Your task to perform on an android device: Open settings on Google Maps Image 0: 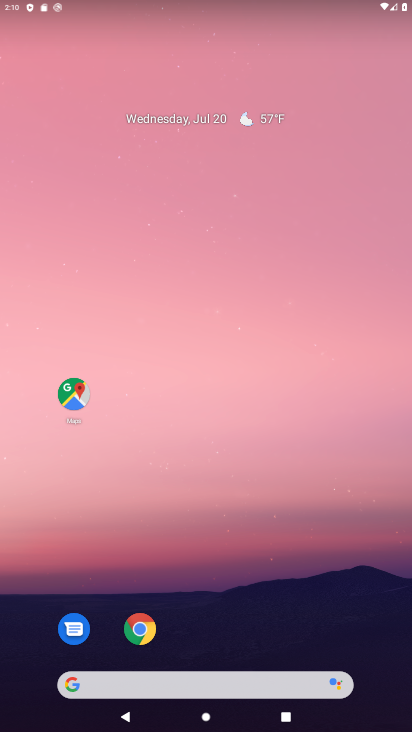
Step 0: click (65, 399)
Your task to perform on an android device: Open settings on Google Maps Image 1: 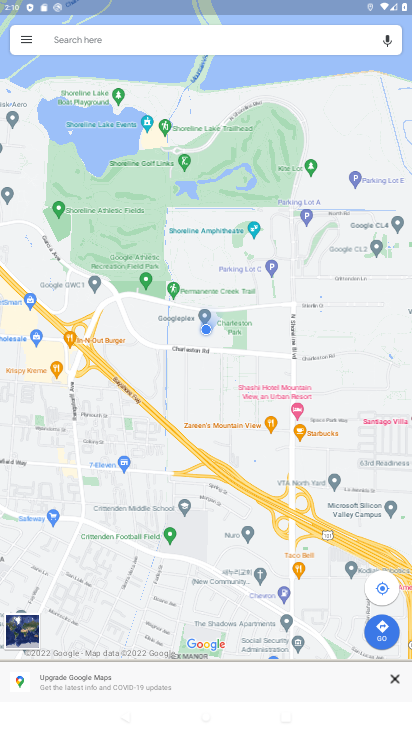
Step 1: click (26, 39)
Your task to perform on an android device: Open settings on Google Maps Image 2: 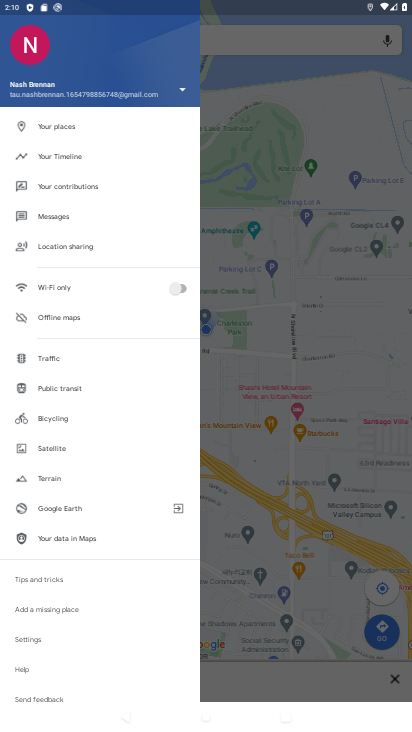
Step 2: drag from (76, 688) to (87, 405)
Your task to perform on an android device: Open settings on Google Maps Image 3: 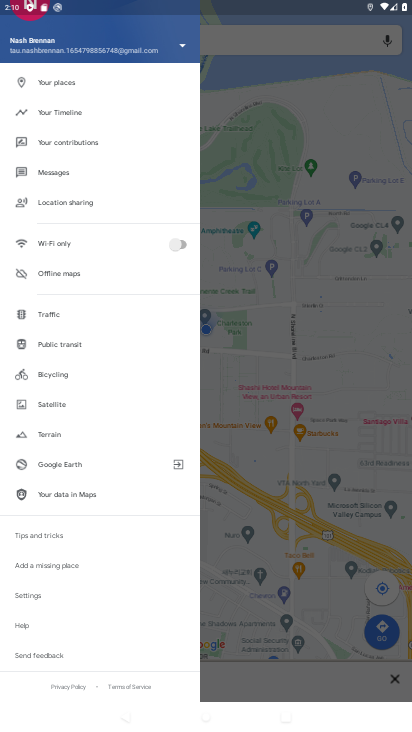
Step 3: click (52, 597)
Your task to perform on an android device: Open settings on Google Maps Image 4: 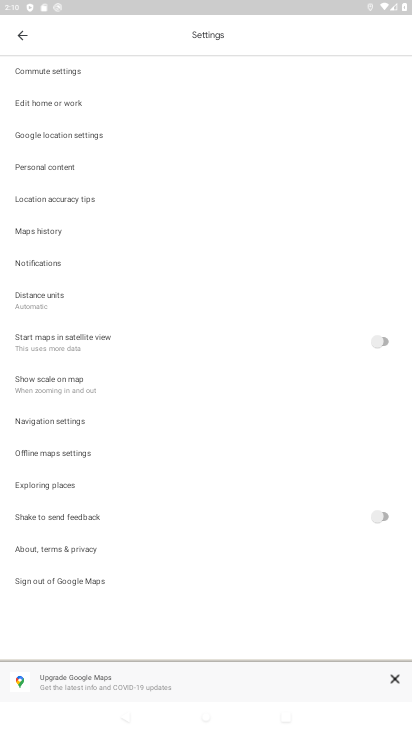
Step 4: task complete